Your task to perform on an android device: visit the assistant section in the google photos Image 0: 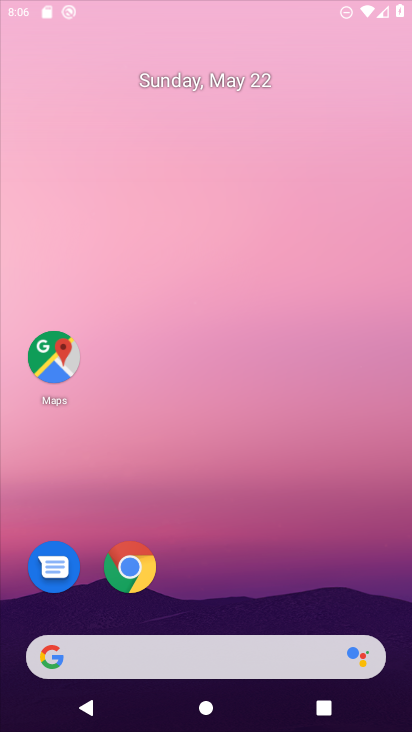
Step 0: drag from (242, 539) to (310, 80)
Your task to perform on an android device: visit the assistant section in the google photos Image 1: 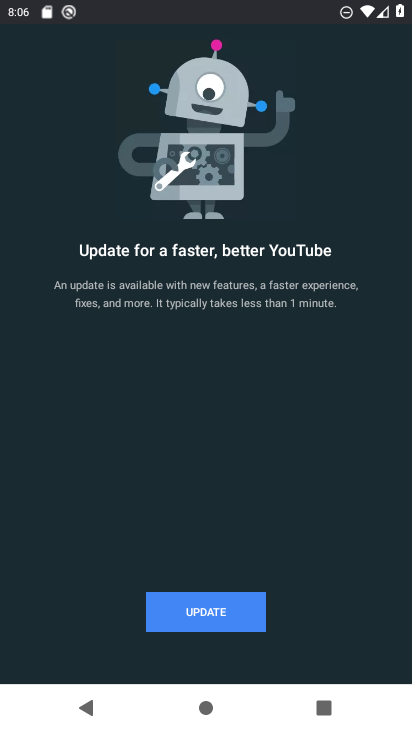
Step 1: press home button
Your task to perform on an android device: visit the assistant section in the google photos Image 2: 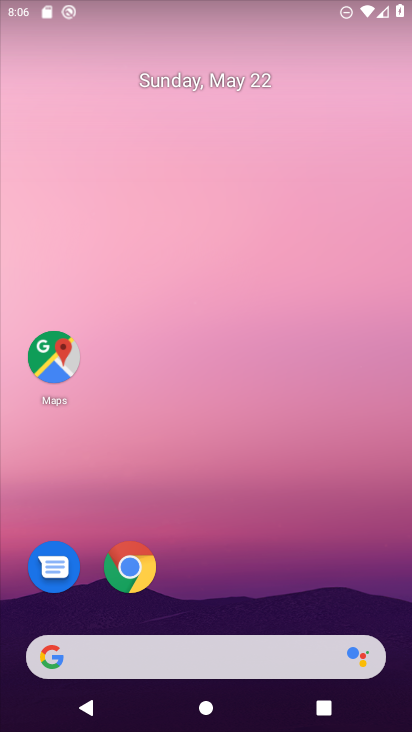
Step 2: drag from (230, 606) to (323, 23)
Your task to perform on an android device: visit the assistant section in the google photos Image 3: 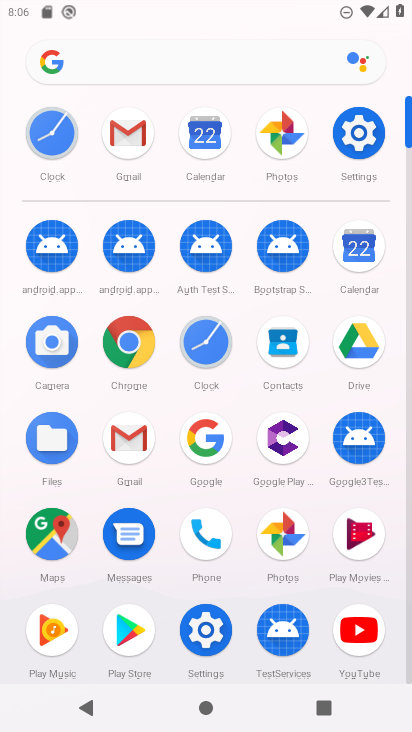
Step 3: click (290, 539)
Your task to perform on an android device: visit the assistant section in the google photos Image 4: 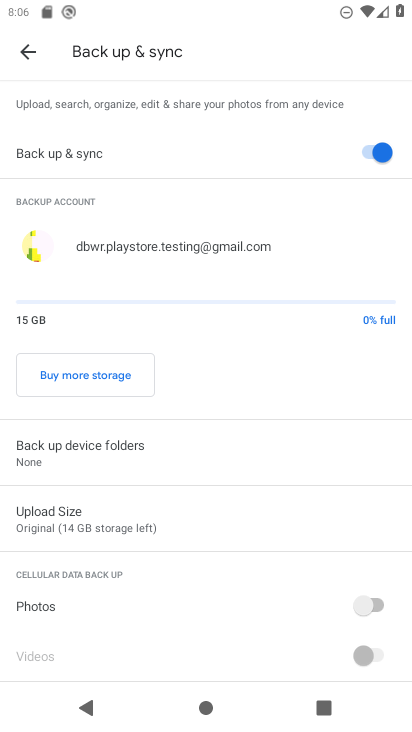
Step 4: click (27, 55)
Your task to perform on an android device: visit the assistant section in the google photos Image 5: 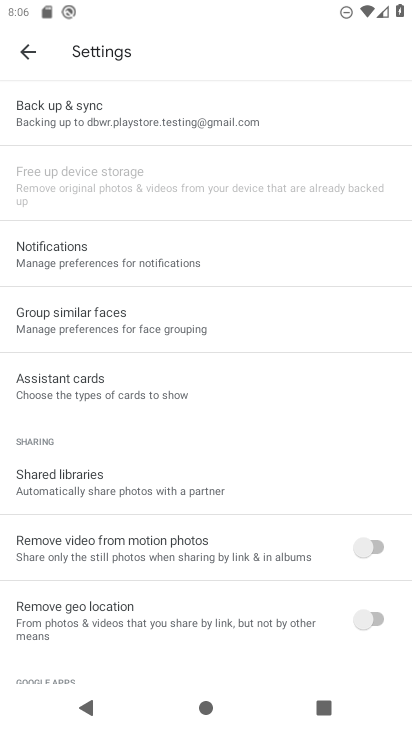
Step 5: click (27, 55)
Your task to perform on an android device: visit the assistant section in the google photos Image 6: 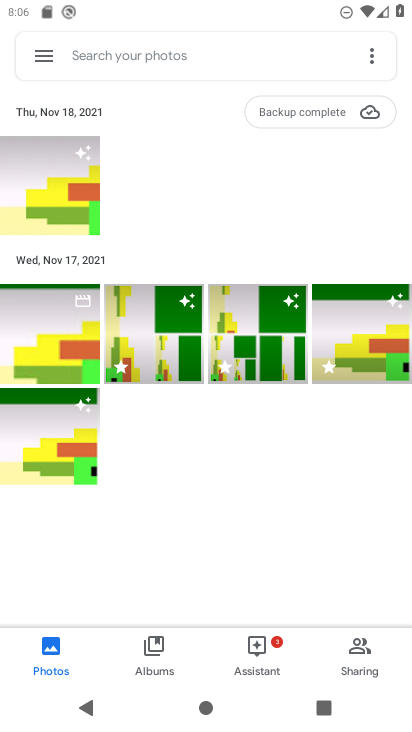
Step 6: click (250, 651)
Your task to perform on an android device: visit the assistant section in the google photos Image 7: 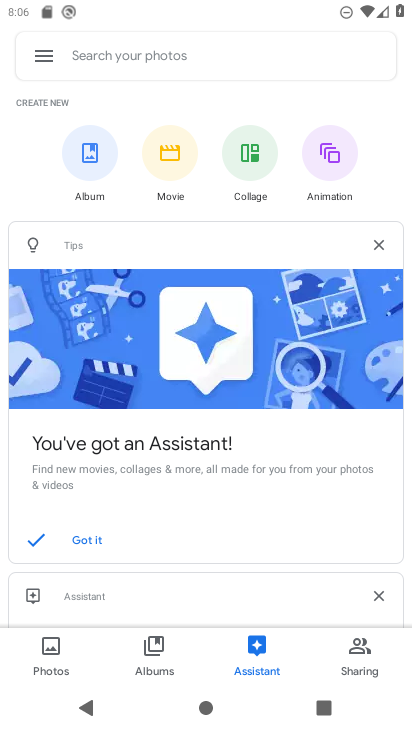
Step 7: task complete